Your task to perform on an android device: Go to network settings Image 0: 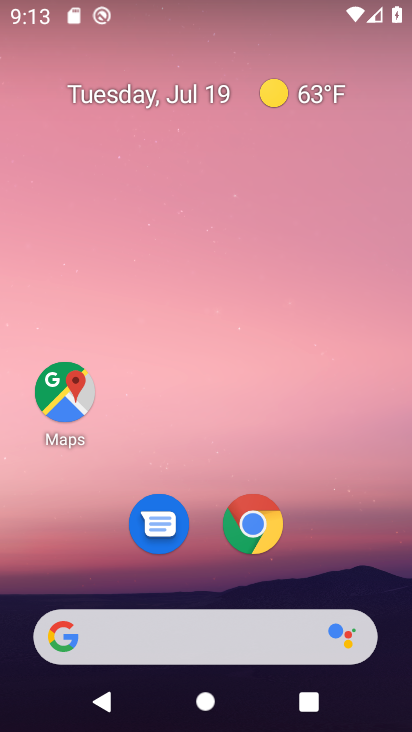
Step 0: drag from (177, 640) to (291, 153)
Your task to perform on an android device: Go to network settings Image 1: 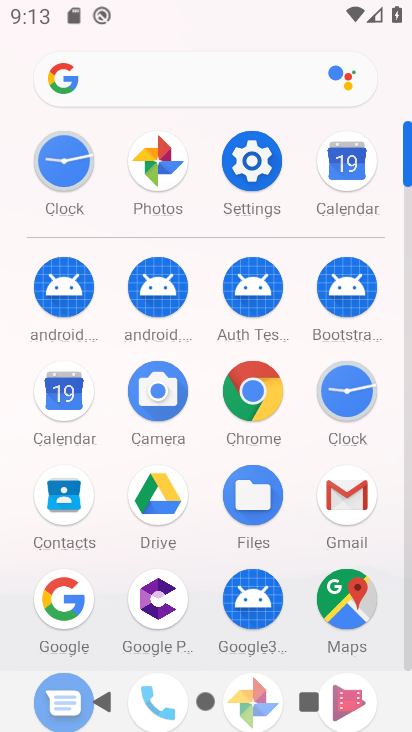
Step 1: click (260, 165)
Your task to perform on an android device: Go to network settings Image 2: 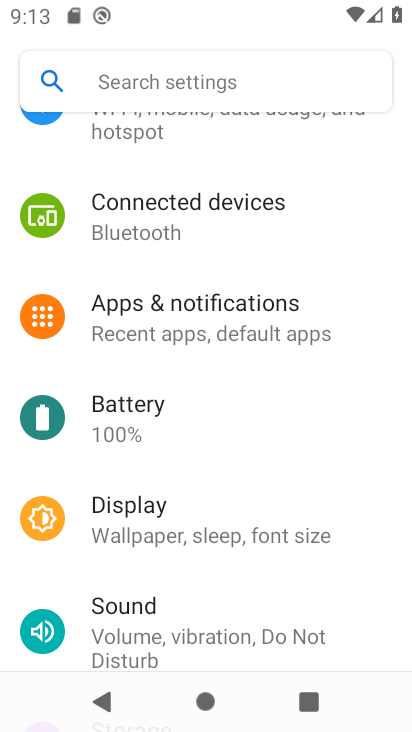
Step 2: drag from (339, 153) to (290, 609)
Your task to perform on an android device: Go to network settings Image 3: 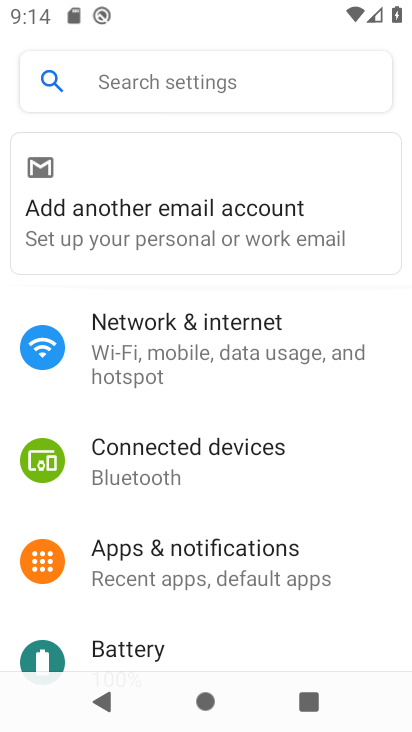
Step 3: click (233, 318)
Your task to perform on an android device: Go to network settings Image 4: 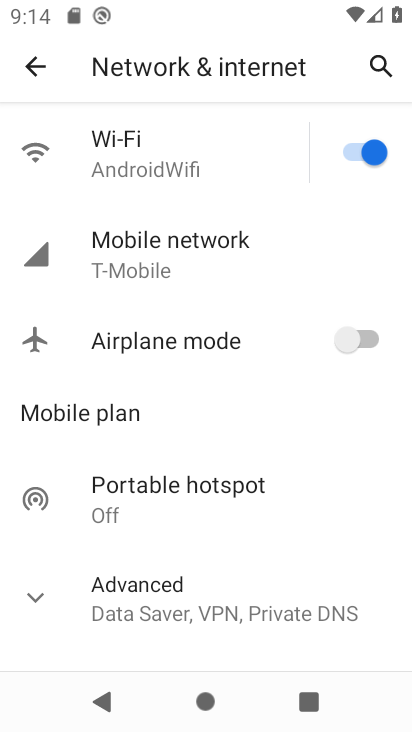
Step 4: click (190, 252)
Your task to perform on an android device: Go to network settings Image 5: 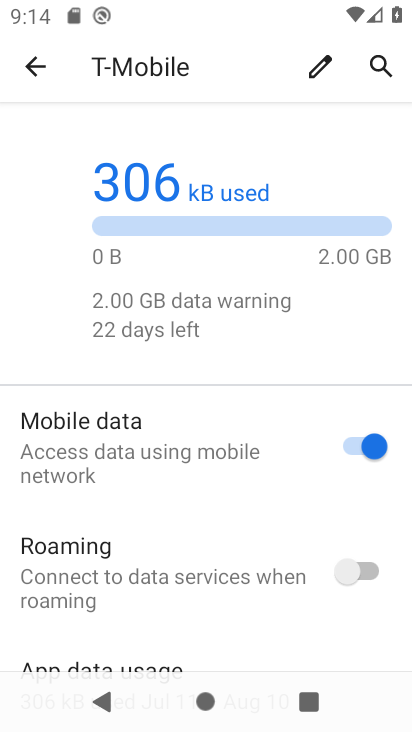
Step 5: task complete